Your task to perform on an android device: check google app version Image 0: 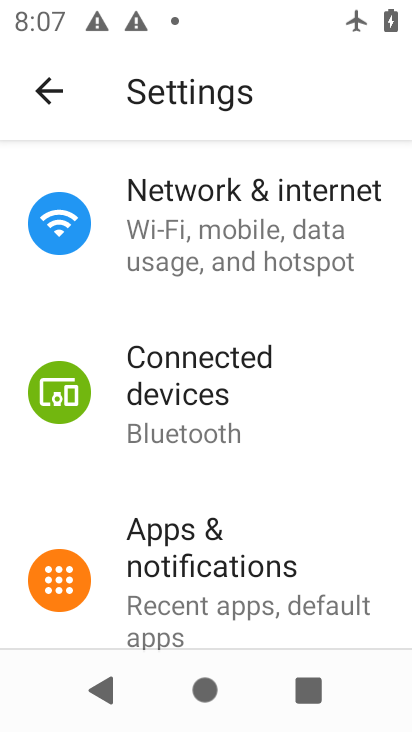
Step 0: press home button
Your task to perform on an android device: check google app version Image 1: 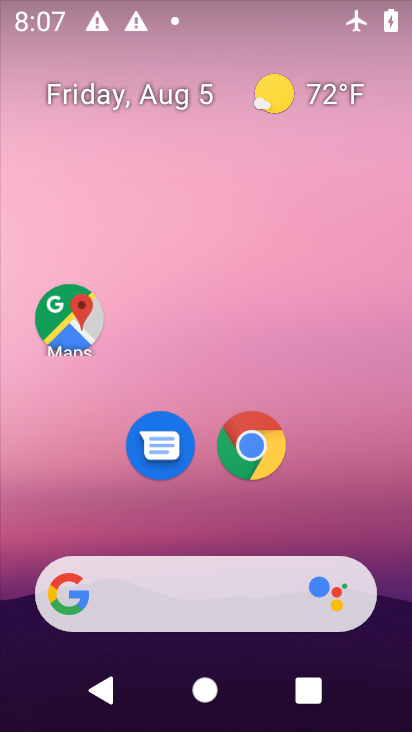
Step 1: drag from (210, 491) to (218, 192)
Your task to perform on an android device: check google app version Image 2: 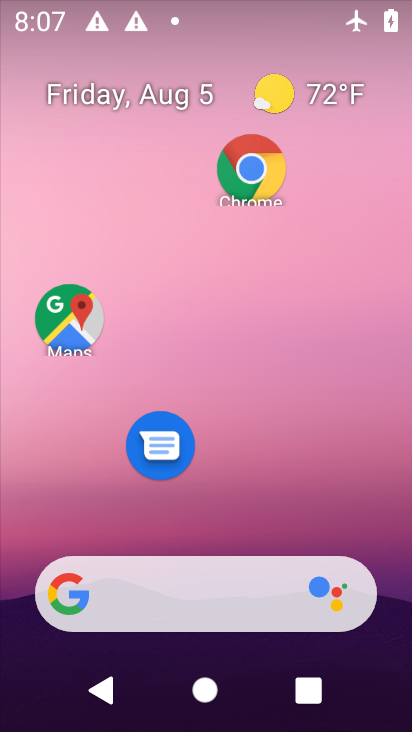
Step 2: drag from (224, 518) to (218, 150)
Your task to perform on an android device: check google app version Image 3: 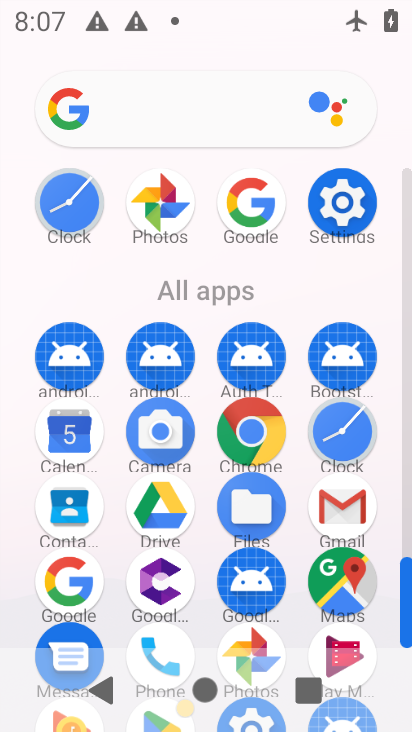
Step 3: click (239, 205)
Your task to perform on an android device: check google app version Image 4: 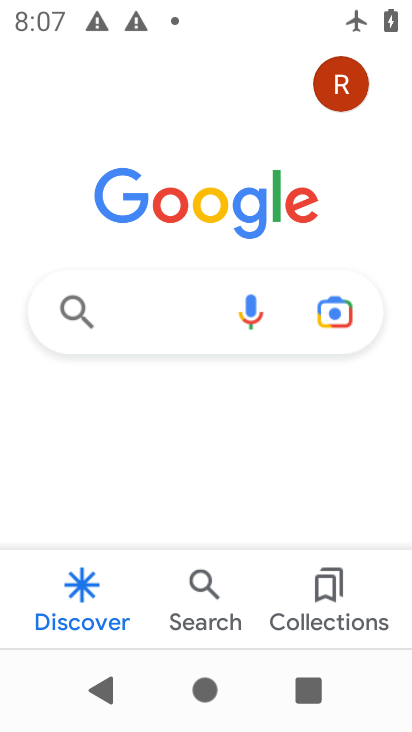
Step 4: click (360, 101)
Your task to perform on an android device: check google app version Image 5: 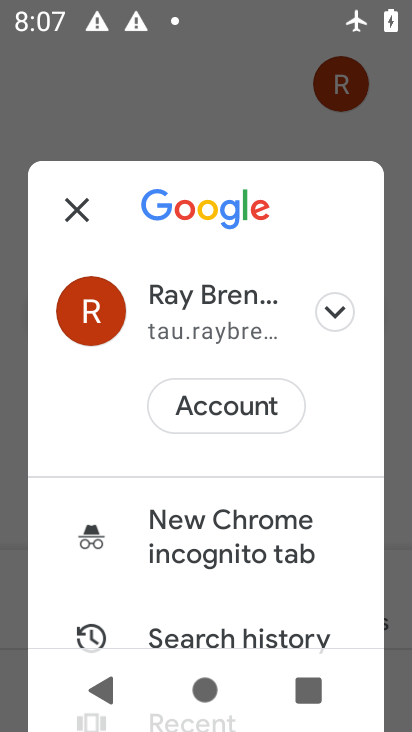
Step 5: drag from (220, 593) to (201, 184)
Your task to perform on an android device: check google app version Image 6: 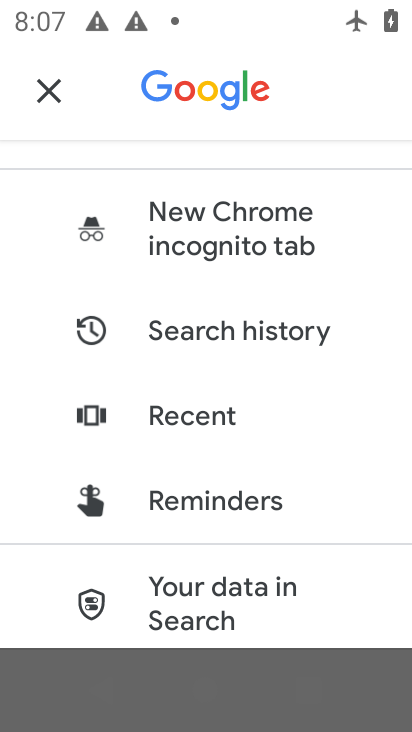
Step 6: drag from (175, 573) to (223, 219)
Your task to perform on an android device: check google app version Image 7: 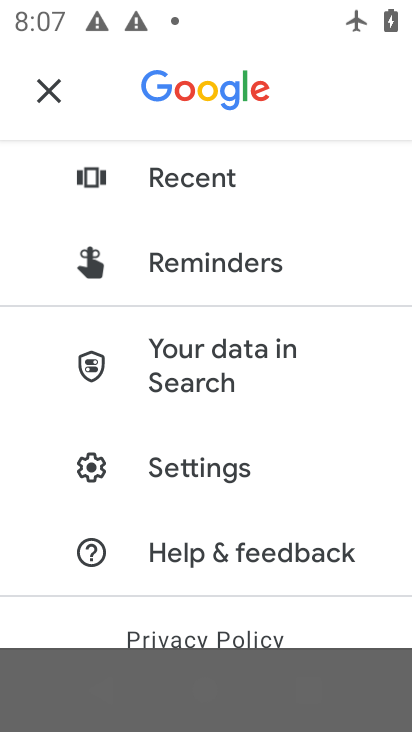
Step 7: drag from (220, 562) to (227, 264)
Your task to perform on an android device: check google app version Image 8: 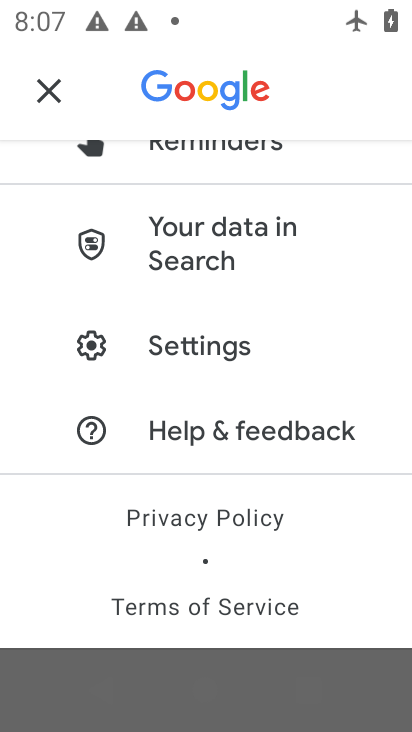
Step 8: drag from (233, 555) to (231, 243)
Your task to perform on an android device: check google app version Image 9: 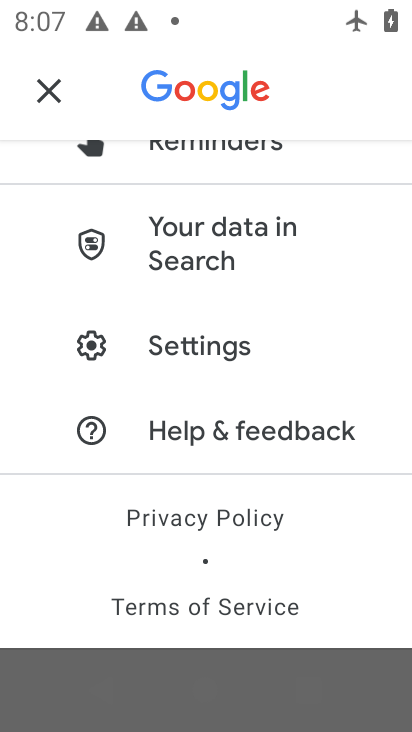
Step 9: click (203, 348)
Your task to perform on an android device: check google app version Image 10: 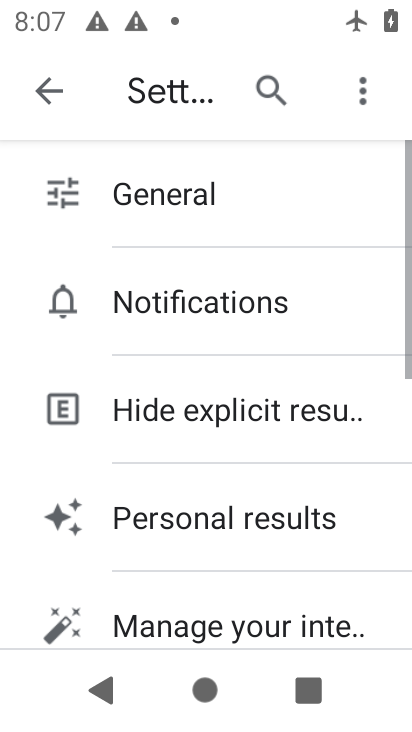
Step 10: drag from (240, 552) to (239, 211)
Your task to perform on an android device: check google app version Image 11: 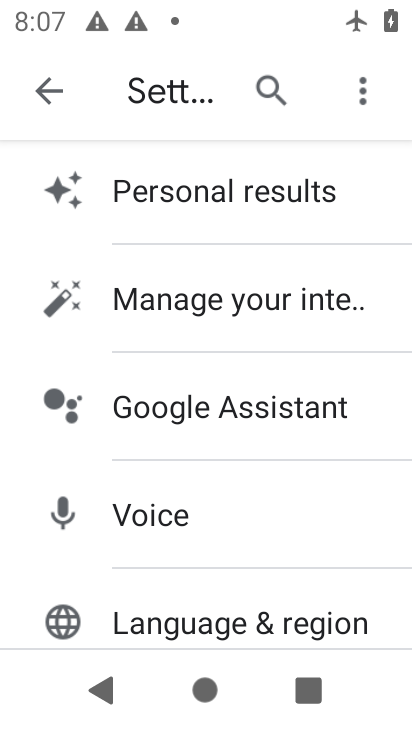
Step 11: drag from (240, 520) to (269, 204)
Your task to perform on an android device: check google app version Image 12: 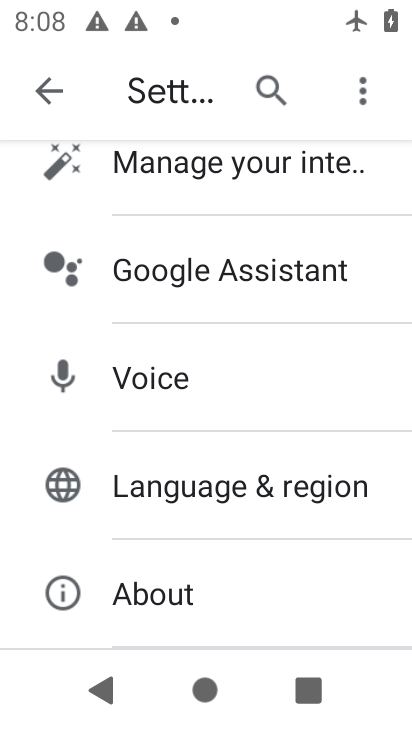
Step 12: drag from (239, 429) to (239, 225)
Your task to perform on an android device: check google app version Image 13: 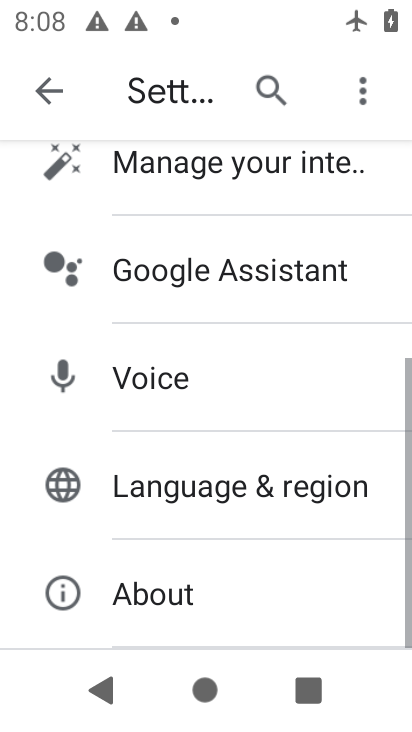
Step 13: drag from (228, 597) to (267, 250)
Your task to perform on an android device: check google app version Image 14: 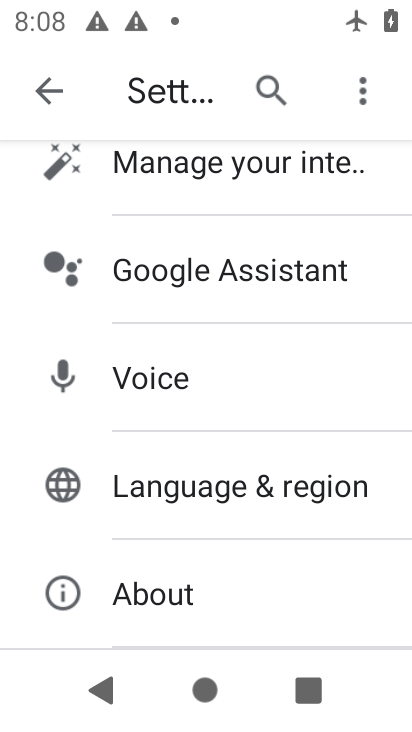
Step 14: click (207, 590)
Your task to perform on an android device: check google app version Image 15: 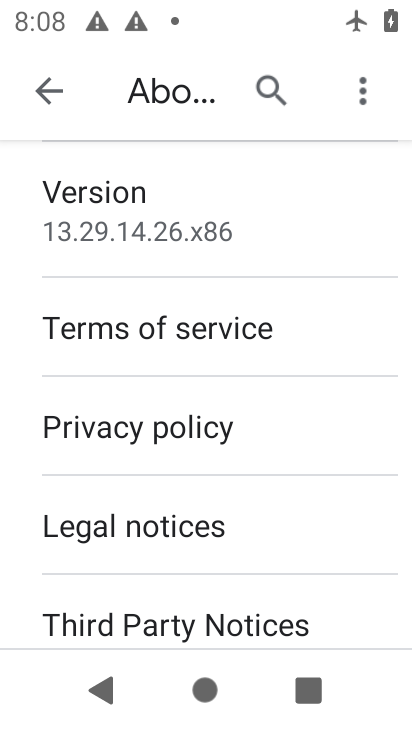
Step 15: click (183, 225)
Your task to perform on an android device: check google app version Image 16: 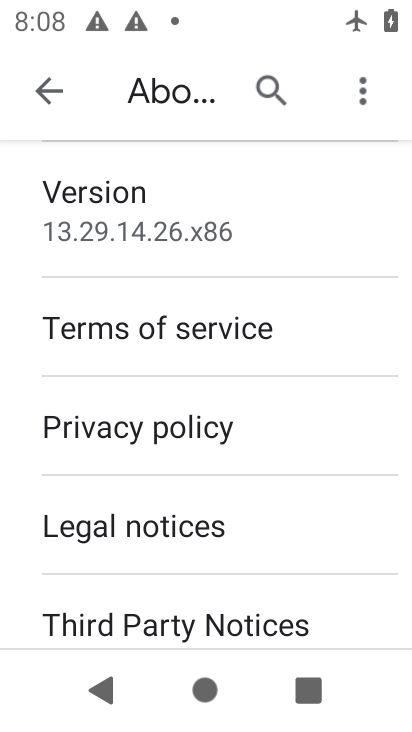
Step 16: click (133, 184)
Your task to perform on an android device: check google app version Image 17: 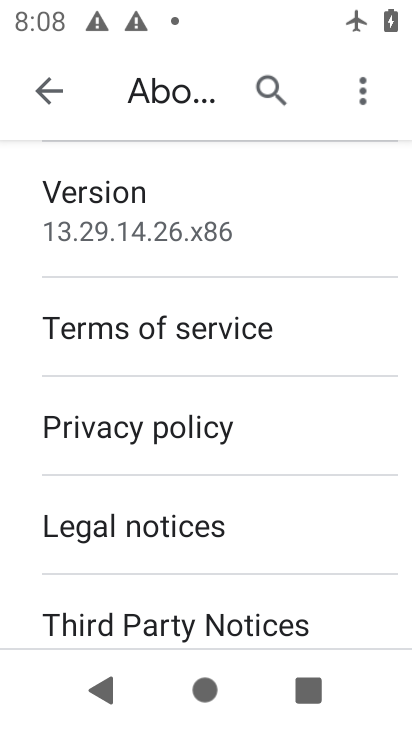
Step 17: click (136, 158)
Your task to perform on an android device: check google app version Image 18: 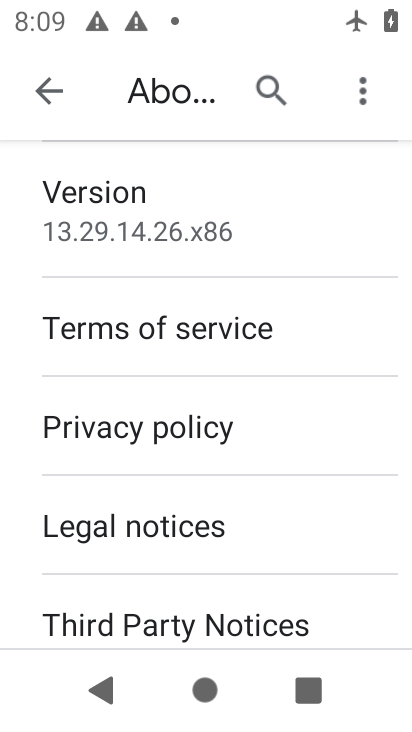
Step 18: click (210, 217)
Your task to perform on an android device: check google app version Image 19: 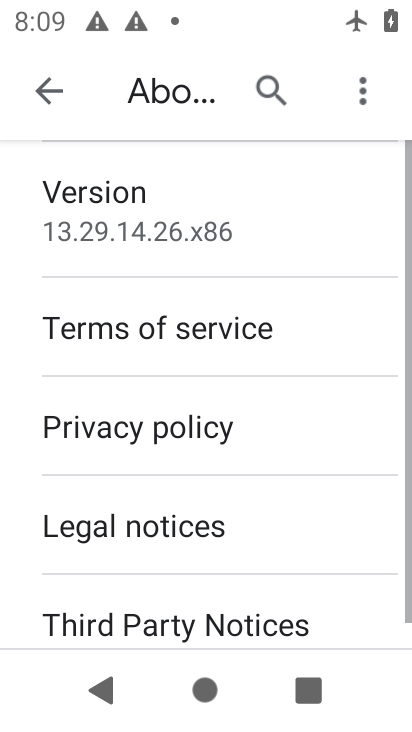
Step 19: task complete